Your task to perform on an android device: Set the phone to "Do not disturb". Image 0: 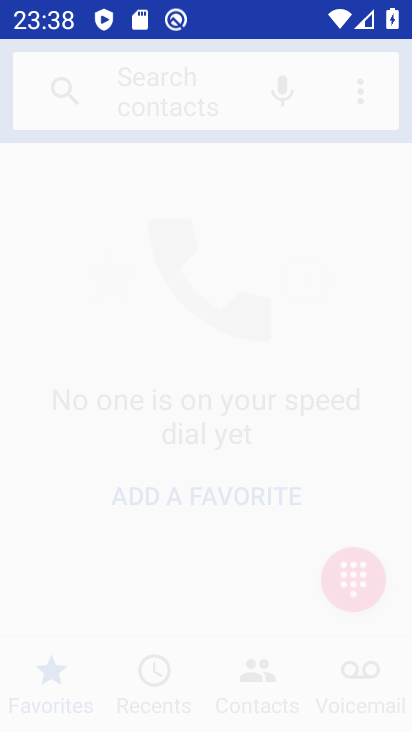
Step 0: drag from (353, 580) to (339, 449)
Your task to perform on an android device: Set the phone to "Do not disturb". Image 1: 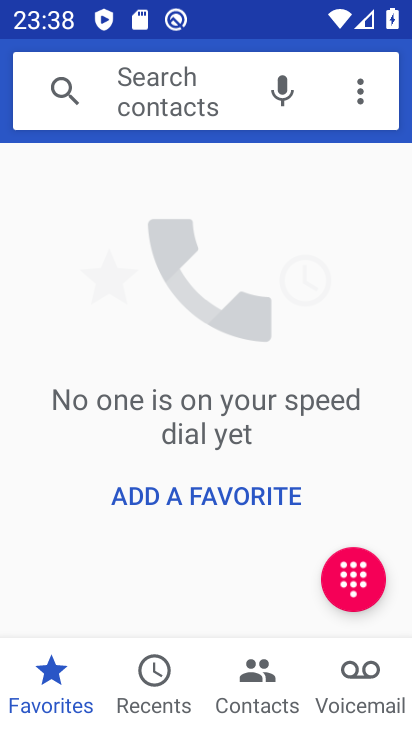
Step 1: press home button
Your task to perform on an android device: Set the phone to "Do not disturb". Image 2: 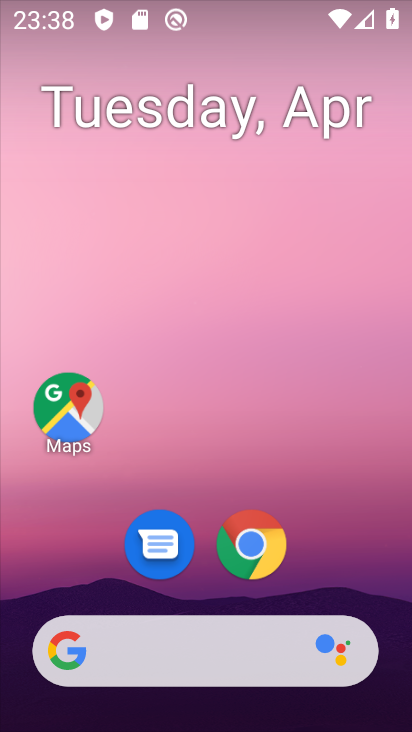
Step 2: drag from (327, 568) to (323, 130)
Your task to perform on an android device: Set the phone to "Do not disturb". Image 3: 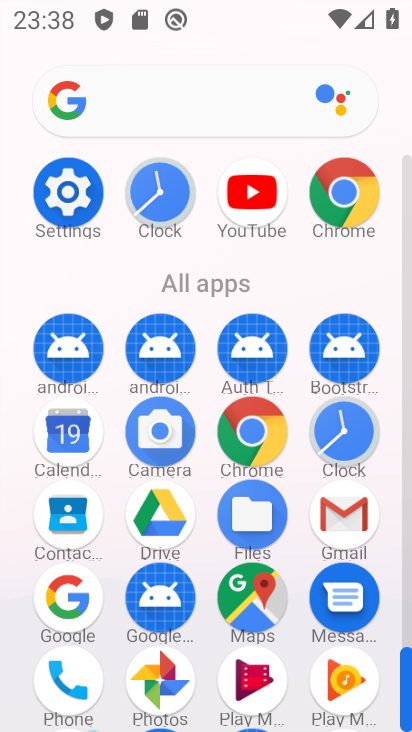
Step 3: click (76, 194)
Your task to perform on an android device: Set the phone to "Do not disturb". Image 4: 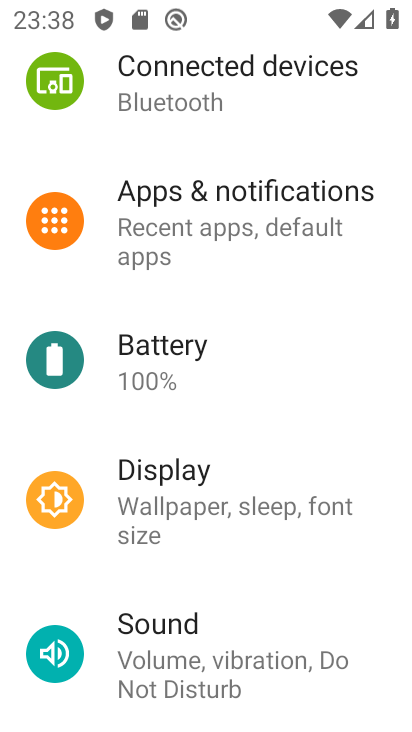
Step 4: drag from (372, 304) to (369, 491)
Your task to perform on an android device: Set the phone to "Do not disturb". Image 5: 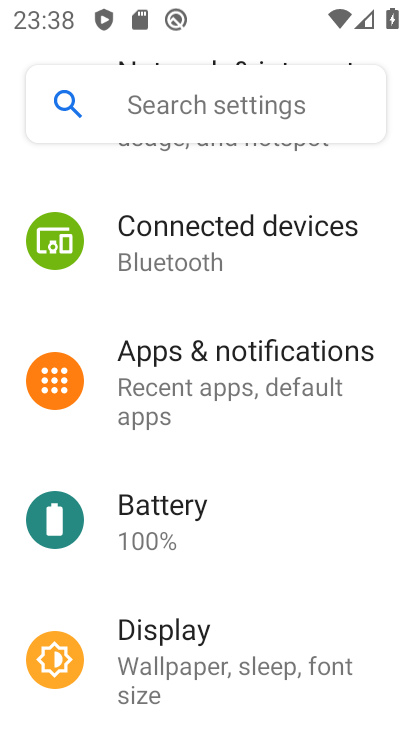
Step 5: drag from (366, 271) to (348, 504)
Your task to perform on an android device: Set the phone to "Do not disturb". Image 6: 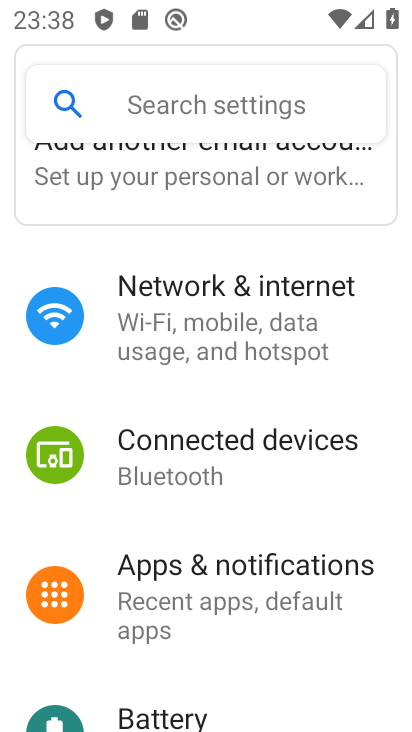
Step 6: drag from (376, 318) to (375, 513)
Your task to perform on an android device: Set the phone to "Do not disturb". Image 7: 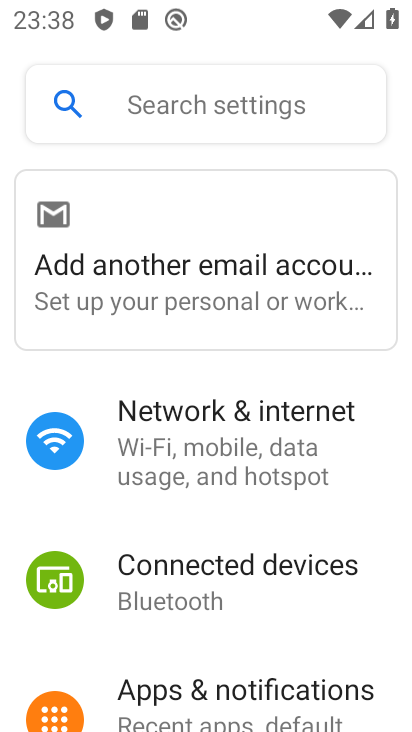
Step 7: drag from (365, 562) to (392, 391)
Your task to perform on an android device: Set the phone to "Do not disturb". Image 8: 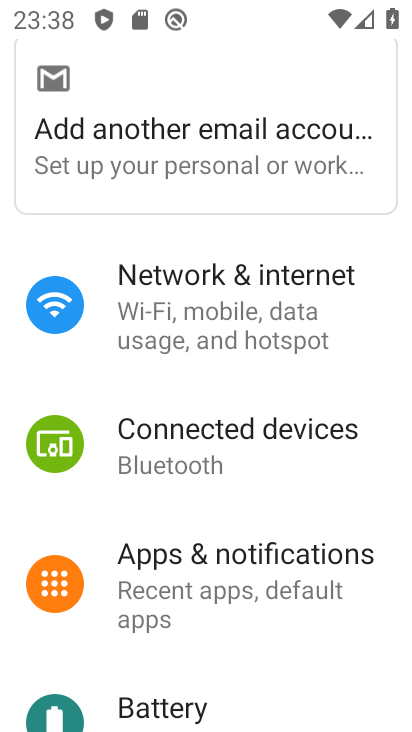
Step 8: drag from (362, 630) to (365, 459)
Your task to perform on an android device: Set the phone to "Do not disturb". Image 9: 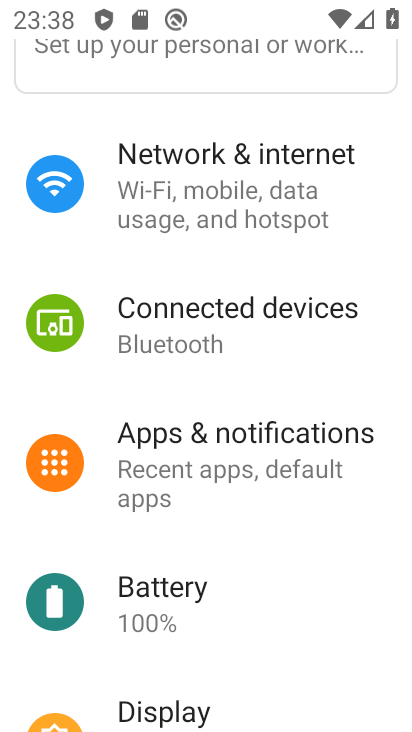
Step 9: drag from (360, 633) to (376, 459)
Your task to perform on an android device: Set the phone to "Do not disturb". Image 10: 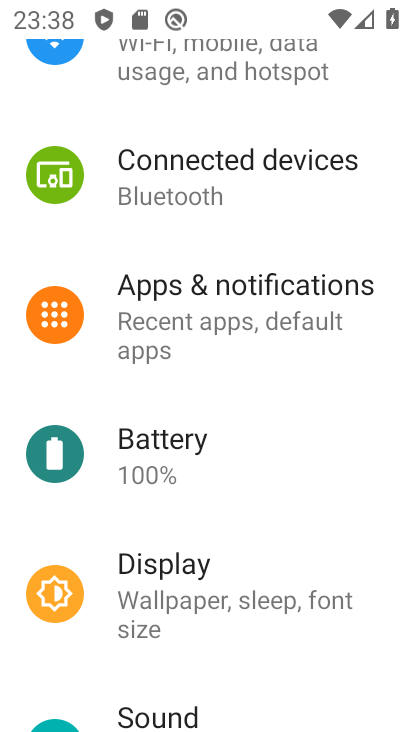
Step 10: drag from (353, 652) to (371, 511)
Your task to perform on an android device: Set the phone to "Do not disturb". Image 11: 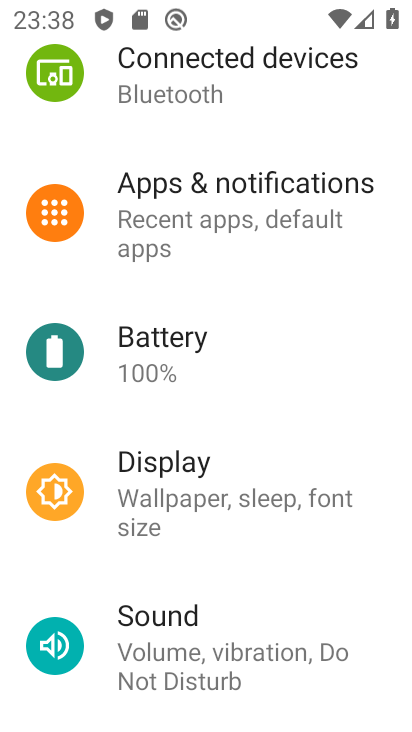
Step 11: drag from (368, 687) to (365, 558)
Your task to perform on an android device: Set the phone to "Do not disturb". Image 12: 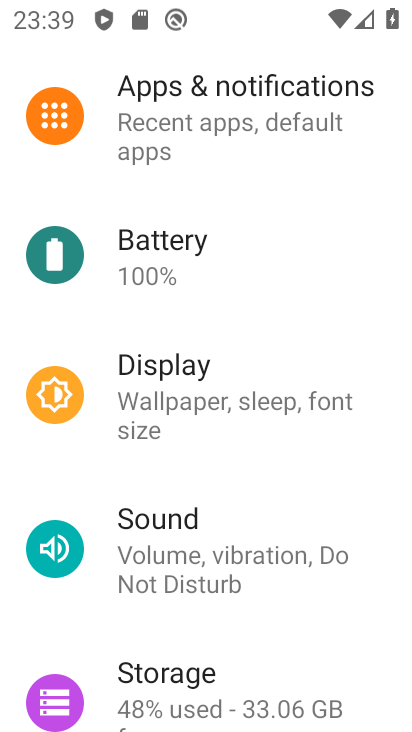
Step 12: click (215, 545)
Your task to perform on an android device: Set the phone to "Do not disturb". Image 13: 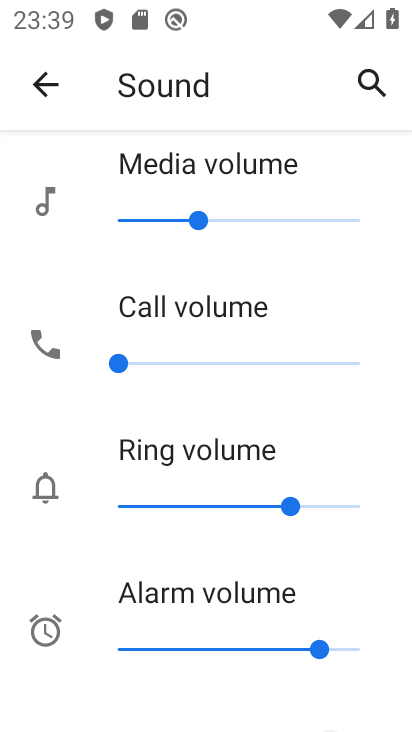
Step 13: drag from (369, 600) to (376, 455)
Your task to perform on an android device: Set the phone to "Do not disturb". Image 14: 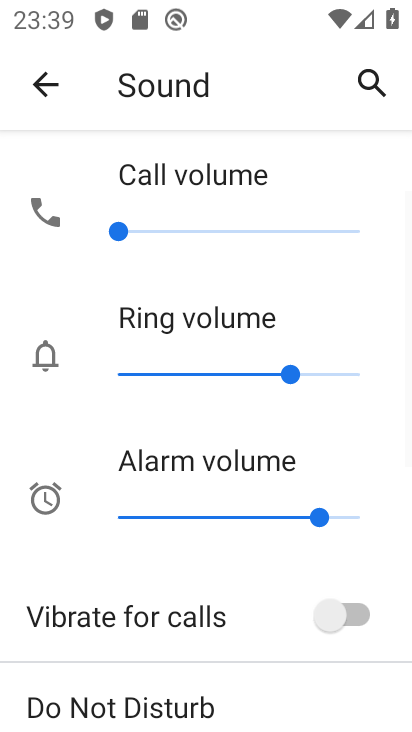
Step 14: drag from (377, 627) to (402, 426)
Your task to perform on an android device: Set the phone to "Do not disturb". Image 15: 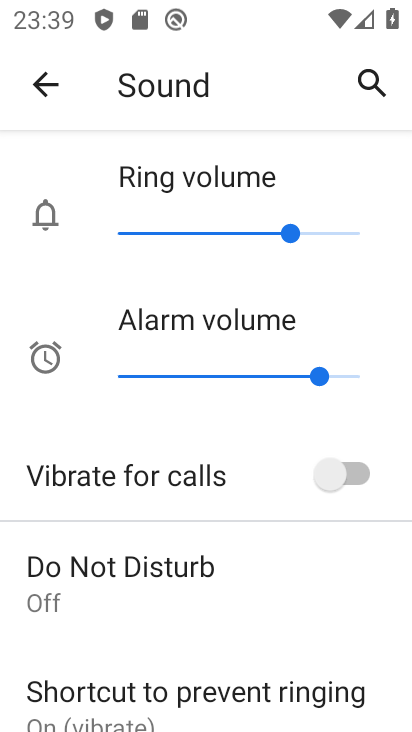
Step 15: click (112, 568)
Your task to perform on an android device: Set the phone to "Do not disturb". Image 16: 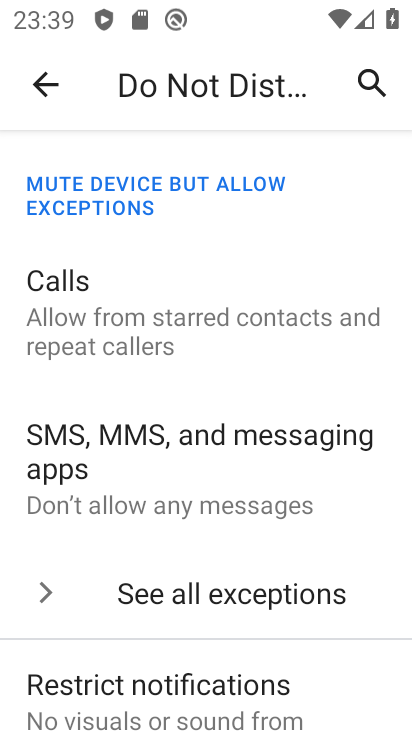
Step 16: drag from (278, 646) to (310, 465)
Your task to perform on an android device: Set the phone to "Do not disturb". Image 17: 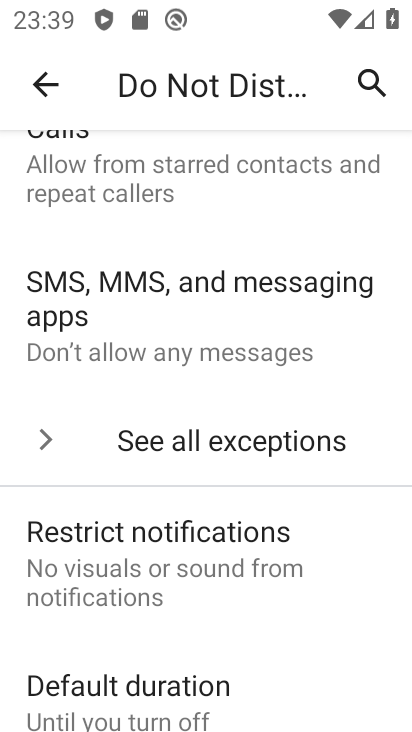
Step 17: drag from (338, 658) to (375, 422)
Your task to perform on an android device: Set the phone to "Do not disturb". Image 18: 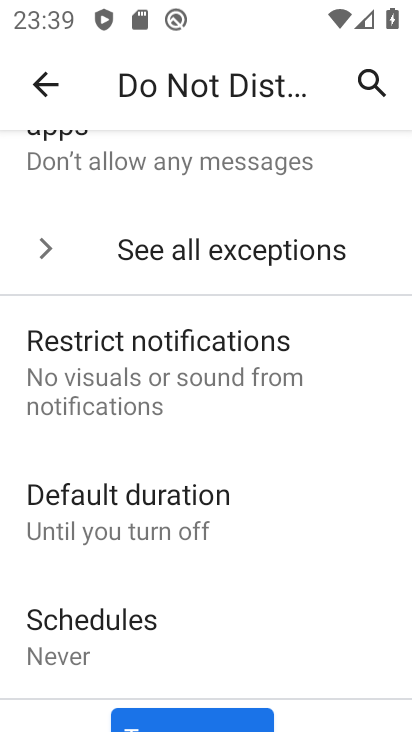
Step 18: drag from (334, 604) to (350, 456)
Your task to perform on an android device: Set the phone to "Do not disturb". Image 19: 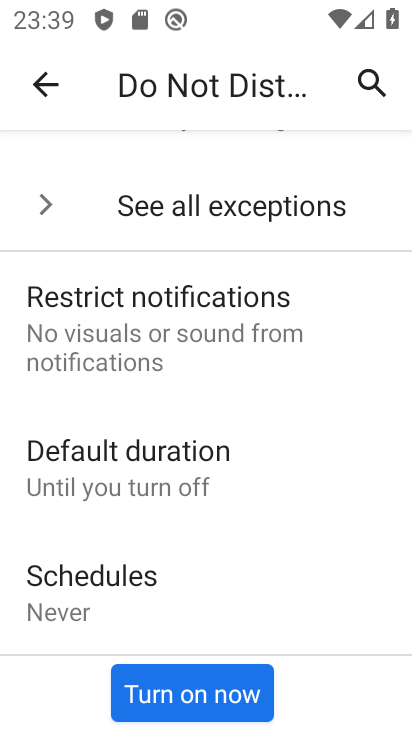
Step 19: click (194, 678)
Your task to perform on an android device: Set the phone to "Do not disturb". Image 20: 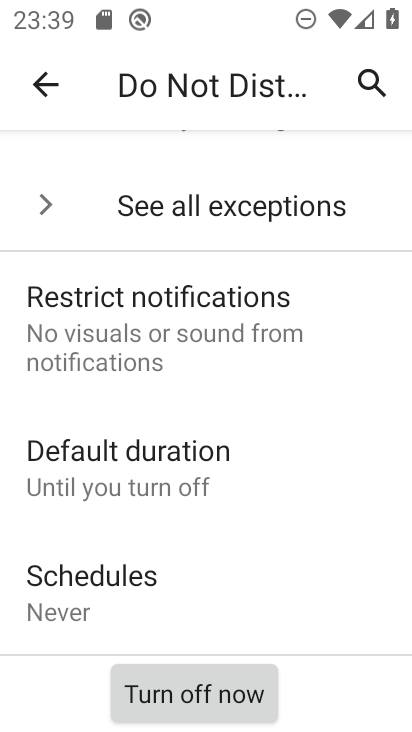
Step 20: task complete